Your task to perform on an android device: Empty the shopping cart on costco.com. Search for logitech g pro on costco.com, select the first entry, and add it to the cart. Image 0: 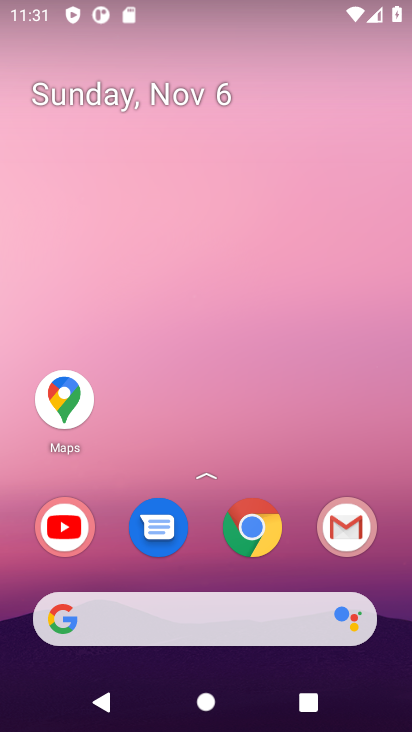
Step 0: drag from (267, 569) to (310, 3)
Your task to perform on an android device: Empty the shopping cart on costco.com. Search for logitech g pro on costco.com, select the first entry, and add it to the cart. Image 1: 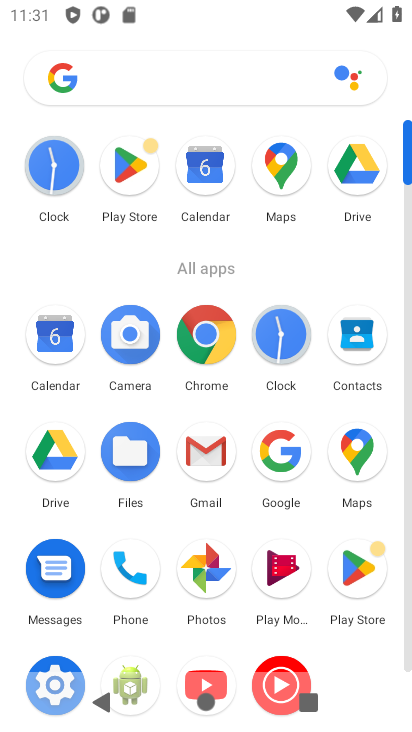
Step 1: click (207, 337)
Your task to perform on an android device: Empty the shopping cart on costco.com. Search for logitech g pro on costco.com, select the first entry, and add it to the cart. Image 2: 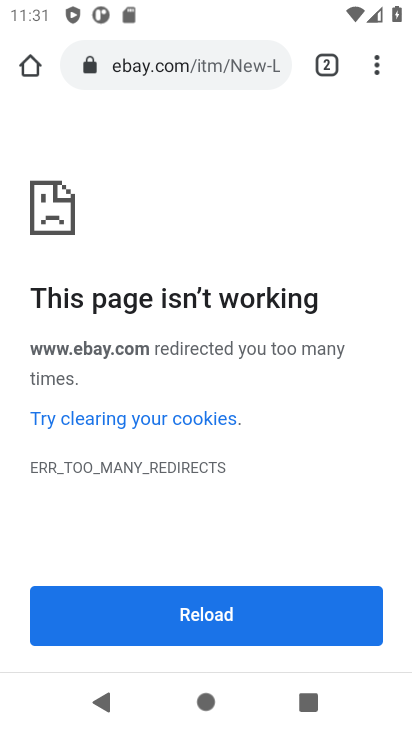
Step 2: click (212, 50)
Your task to perform on an android device: Empty the shopping cart on costco.com. Search for logitech g pro on costco.com, select the first entry, and add it to the cart. Image 3: 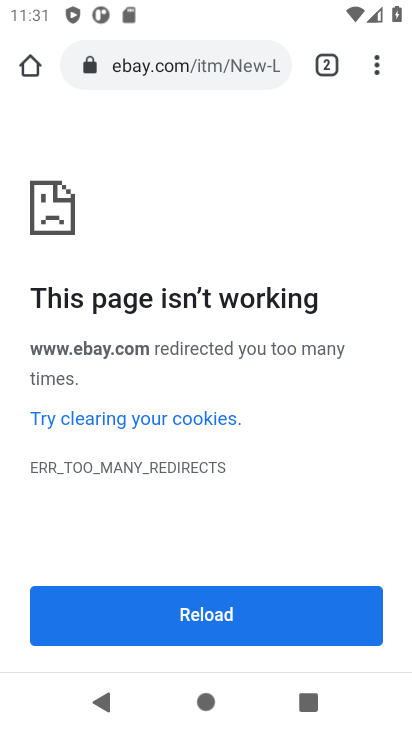
Step 3: click (205, 78)
Your task to perform on an android device: Empty the shopping cart on costco.com. Search for logitech g pro on costco.com, select the first entry, and add it to the cart. Image 4: 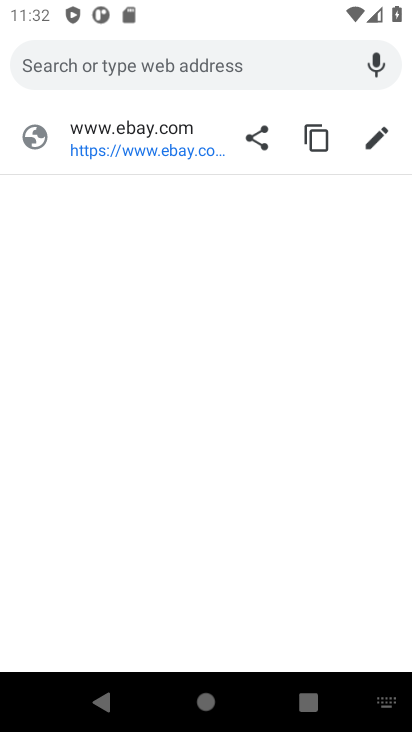
Step 4: type "costco.com"
Your task to perform on an android device: Empty the shopping cart on costco.com. Search for logitech g pro on costco.com, select the first entry, and add it to the cart. Image 5: 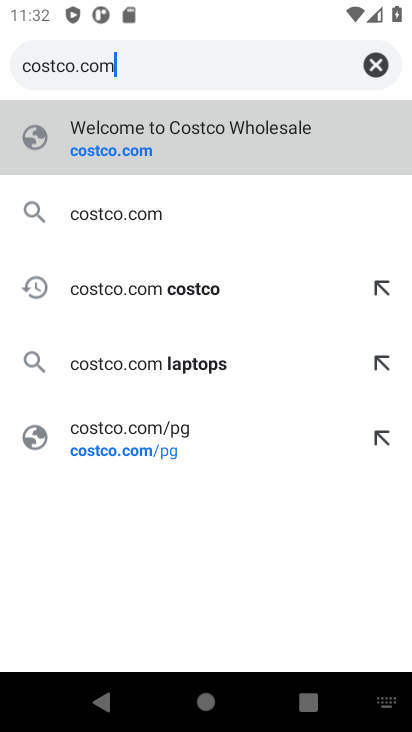
Step 5: press enter
Your task to perform on an android device: Empty the shopping cart on costco.com. Search for logitech g pro on costco.com, select the first entry, and add it to the cart. Image 6: 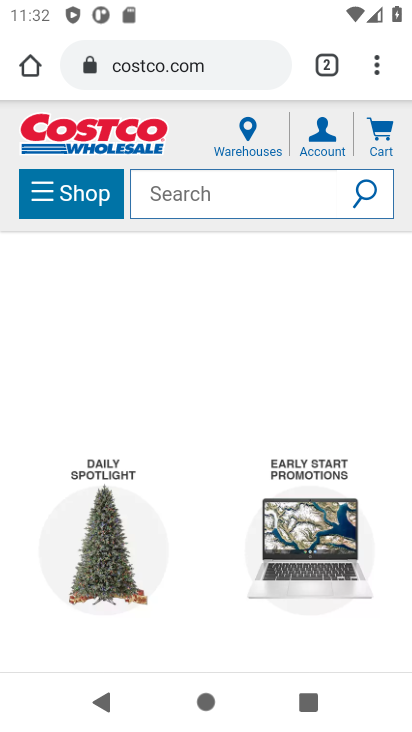
Step 6: click (233, 191)
Your task to perform on an android device: Empty the shopping cart on costco.com. Search for logitech g pro on costco.com, select the first entry, and add it to the cart. Image 7: 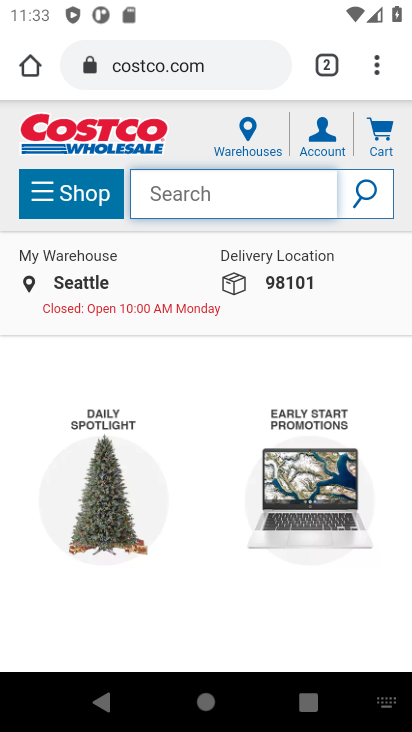
Step 7: type "logitech g pro "
Your task to perform on an android device: Empty the shopping cart on costco.com. Search for logitech g pro on costco.com, select the first entry, and add it to the cart. Image 8: 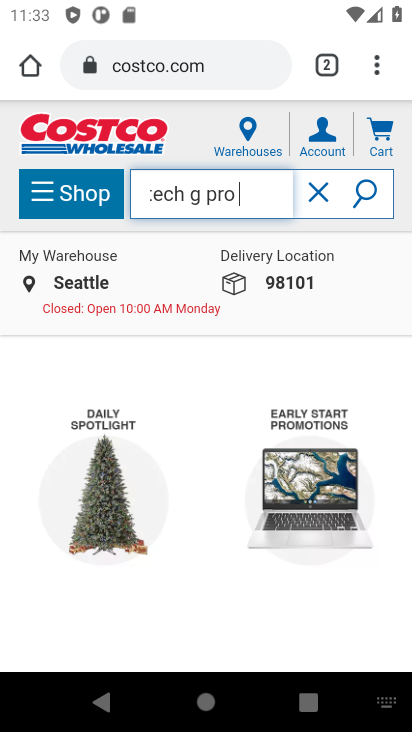
Step 8: press enter
Your task to perform on an android device: Empty the shopping cart on costco.com. Search for logitech g pro on costco.com, select the first entry, and add it to the cart. Image 9: 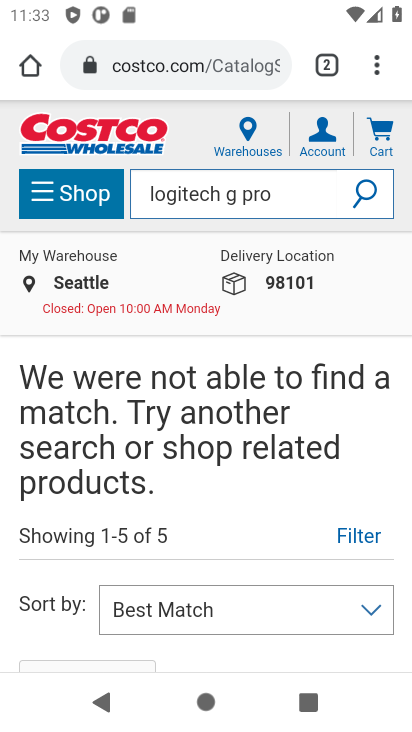
Step 9: drag from (224, 487) to (287, 154)
Your task to perform on an android device: Empty the shopping cart on costco.com. Search for logitech g pro on costco.com, select the first entry, and add it to the cart. Image 10: 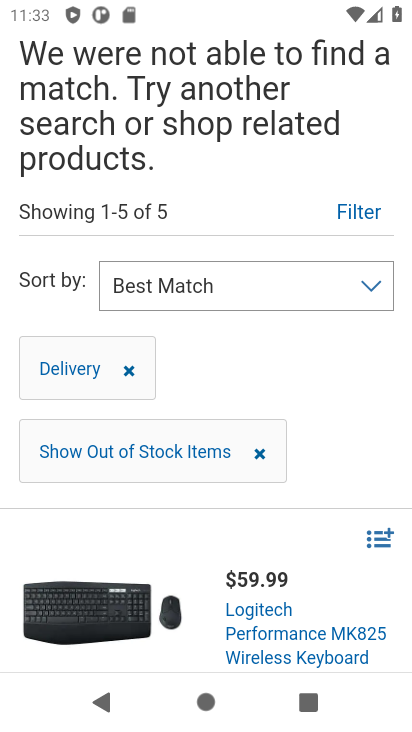
Step 10: drag from (315, 573) to (253, 234)
Your task to perform on an android device: Empty the shopping cart on costco.com. Search for logitech g pro on costco.com, select the first entry, and add it to the cart. Image 11: 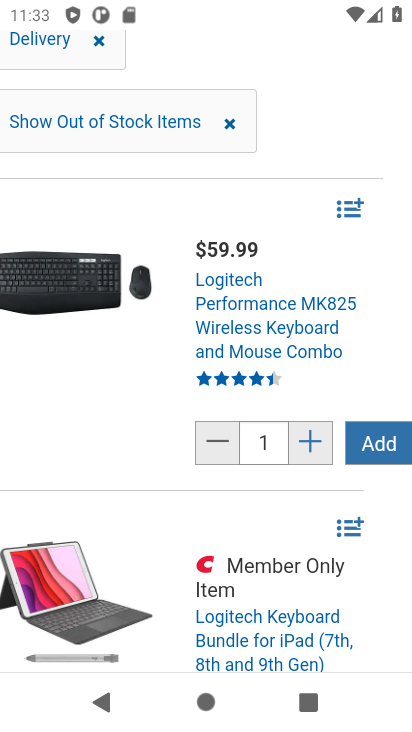
Step 11: click (376, 443)
Your task to perform on an android device: Empty the shopping cart on costco.com. Search for logitech g pro on costco.com, select the first entry, and add it to the cart. Image 12: 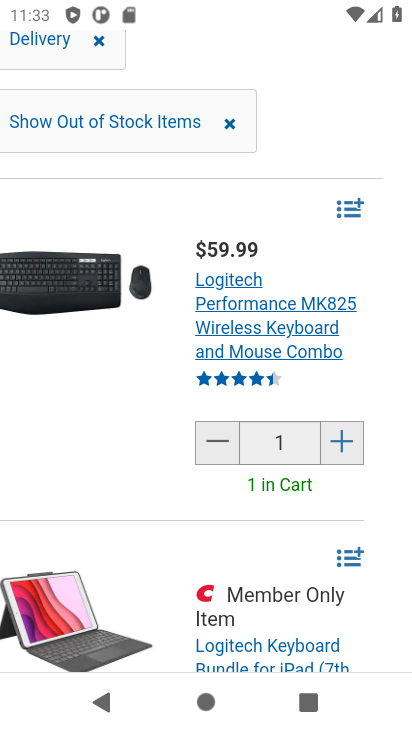
Step 12: click (183, 643)
Your task to perform on an android device: Empty the shopping cart on costco.com. Search for logitech g pro on costco.com, select the first entry, and add it to the cart. Image 13: 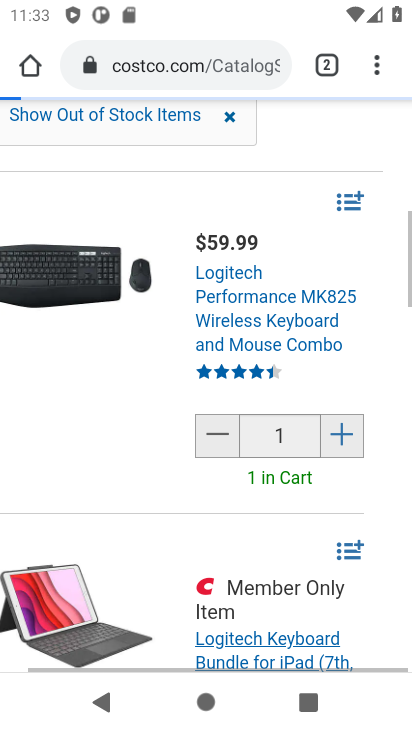
Step 13: drag from (159, 244) to (171, 545)
Your task to perform on an android device: Empty the shopping cart on costco.com. Search for logitech g pro on costco.com, select the first entry, and add it to the cart. Image 14: 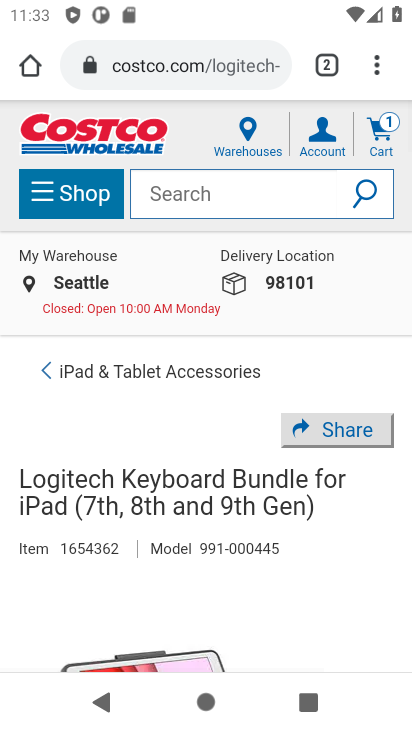
Step 14: click (390, 119)
Your task to perform on an android device: Empty the shopping cart on costco.com. Search for logitech g pro on costco.com, select the first entry, and add it to the cart. Image 15: 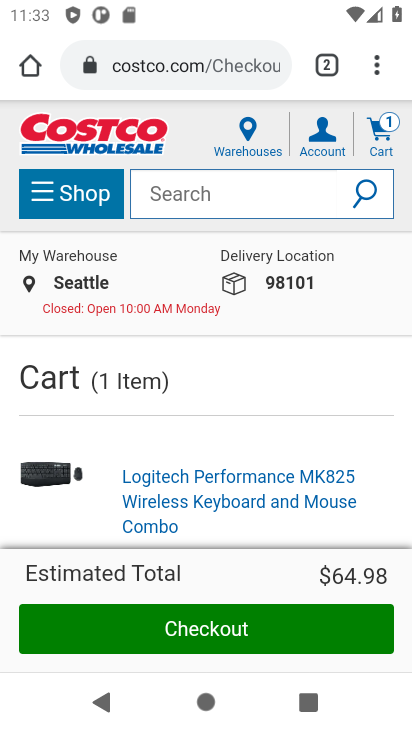
Step 15: click (240, 637)
Your task to perform on an android device: Empty the shopping cart on costco.com. Search for logitech g pro on costco.com, select the first entry, and add it to the cart. Image 16: 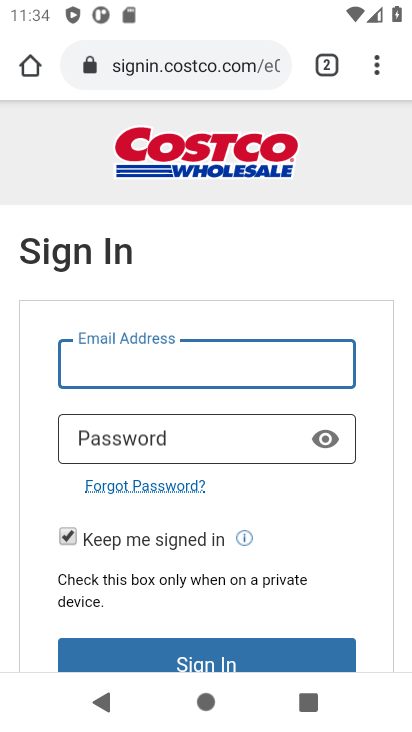
Step 16: task complete